Your task to perform on an android device: Open Chrome and go to settings Image 0: 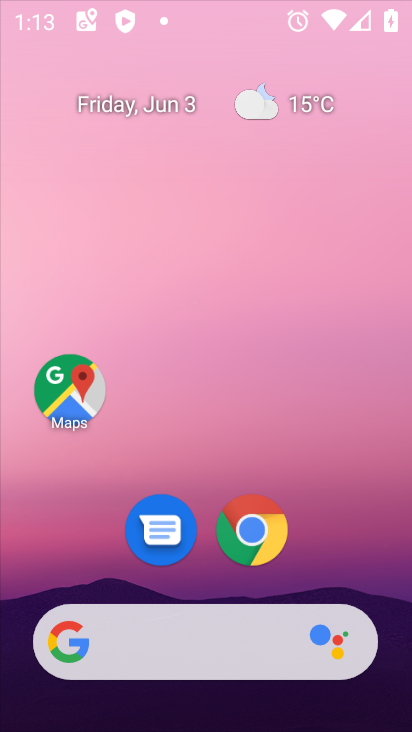
Step 0: click (360, 122)
Your task to perform on an android device: Open Chrome and go to settings Image 1: 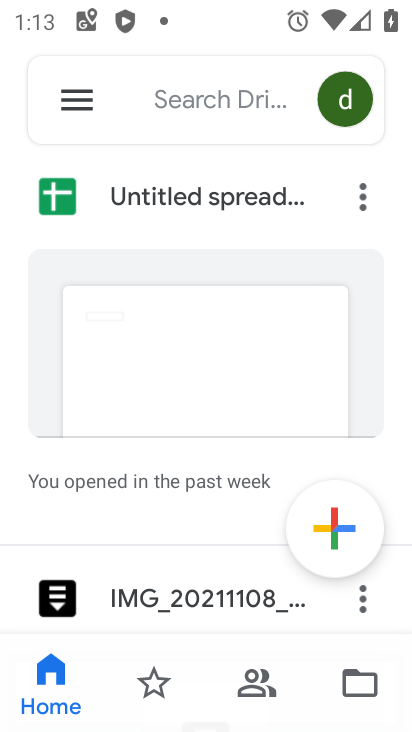
Step 1: press home button
Your task to perform on an android device: Open Chrome and go to settings Image 2: 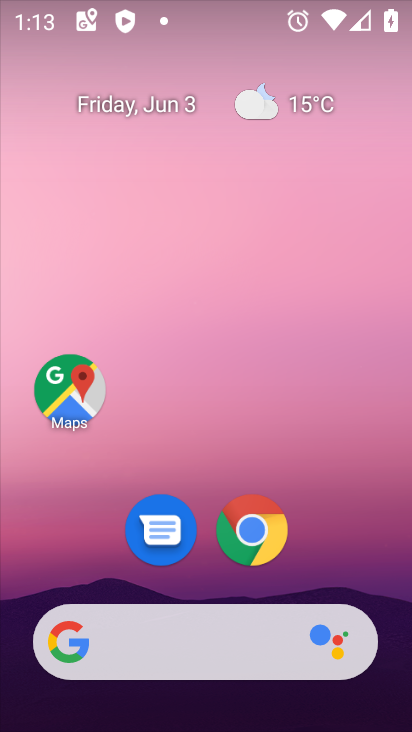
Step 2: click (271, 535)
Your task to perform on an android device: Open Chrome and go to settings Image 3: 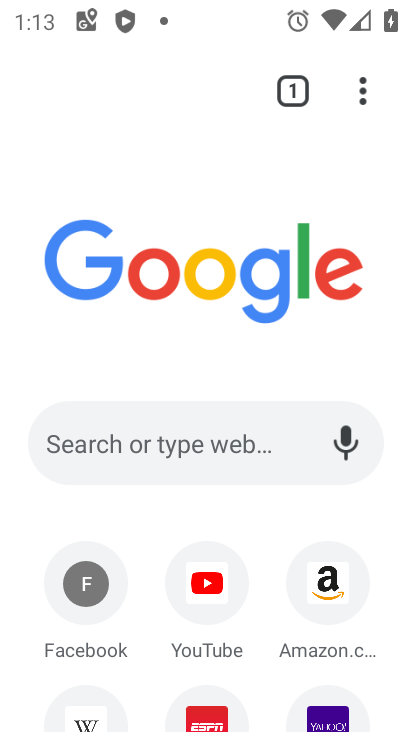
Step 3: click (366, 85)
Your task to perform on an android device: Open Chrome and go to settings Image 4: 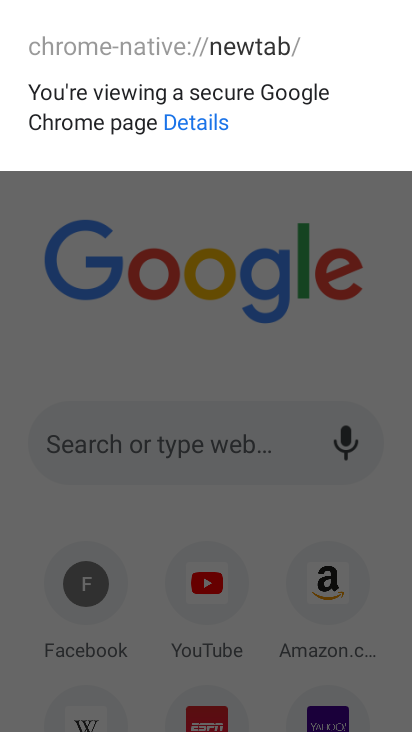
Step 4: click (339, 225)
Your task to perform on an android device: Open Chrome and go to settings Image 5: 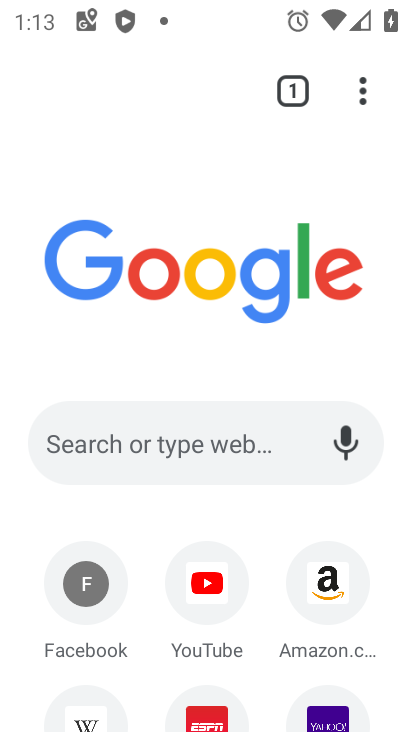
Step 5: task complete